Your task to perform on an android device: Open Google Chrome and open the bookmarks view Image 0: 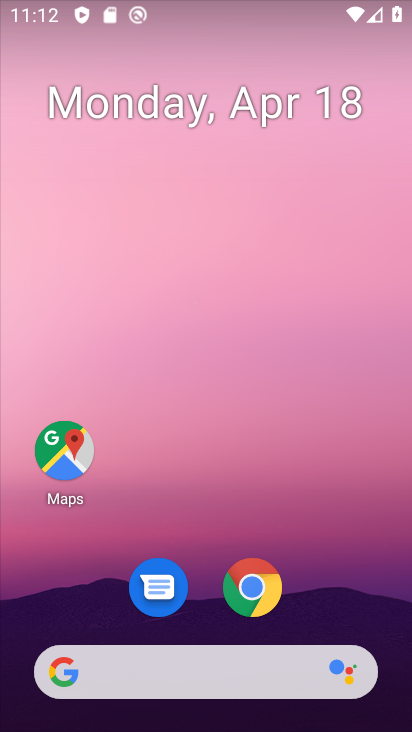
Step 0: drag from (348, 600) to (386, 100)
Your task to perform on an android device: Open Google Chrome and open the bookmarks view Image 1: 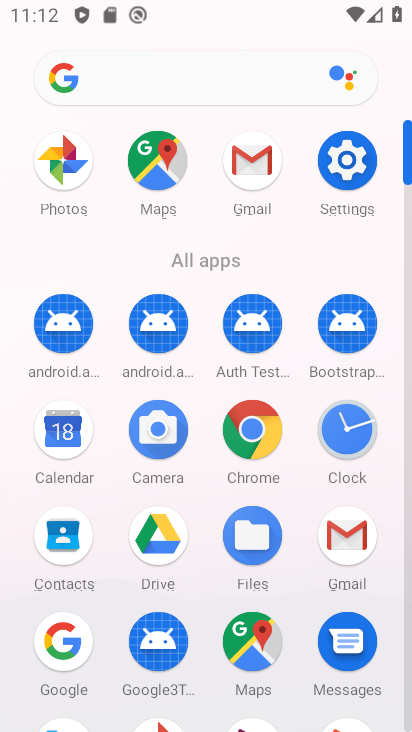
Step 1: drag from (305, 295) to (327, 1)
Your task to perform on an android device: Open Google Chrome and open the bookmarks view Image 2: 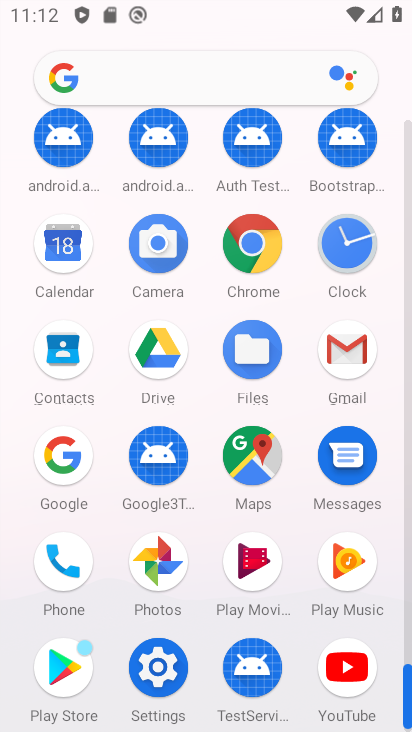
Step 2: click (255, 242)
Your task to perform on an android device: Open Google Chrome and open the bookmarks view Image 3: 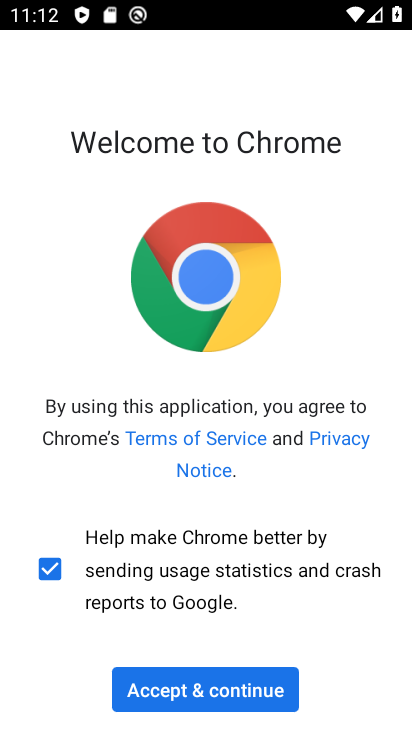
Step 3: click (203, 686)
Your task to perform on an android device: Open Google Chrome and open the bookmarks view Image 4: 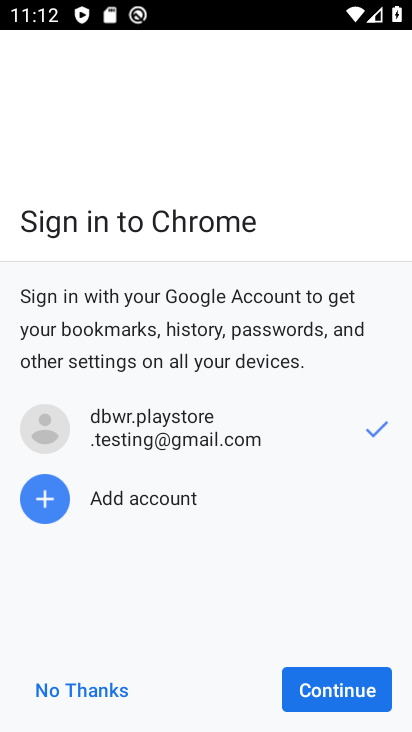
Step 4: click (349, 688)
Your task to perform on an android device: Open Google Chrome and open the bookmarks view Image 5: 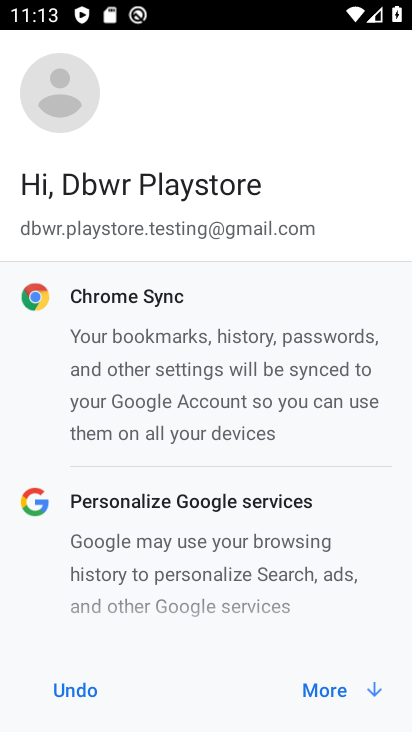
Step 5: click (321, 689)
Your task to perform on an android device: Open Google Chrome and open the bookmarks view Image 6: 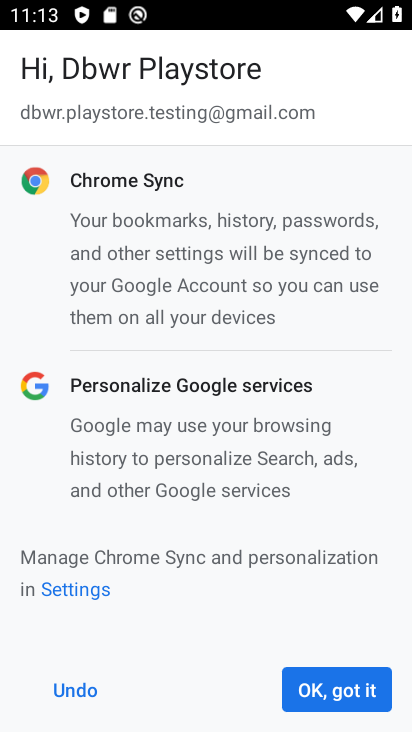
Step 6: click (374, 694)
Your task to perform on an android device: Open Google Chrome and open the bookmarks view Image 7: 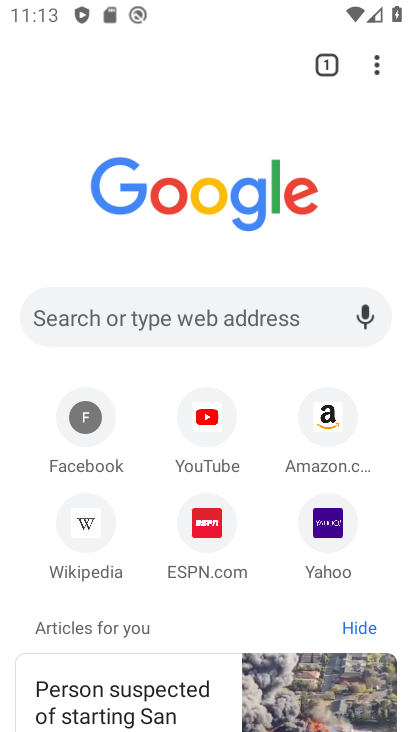
Step 7: task complete